Your task to perform on an android device: Open CNN.com Image 0: 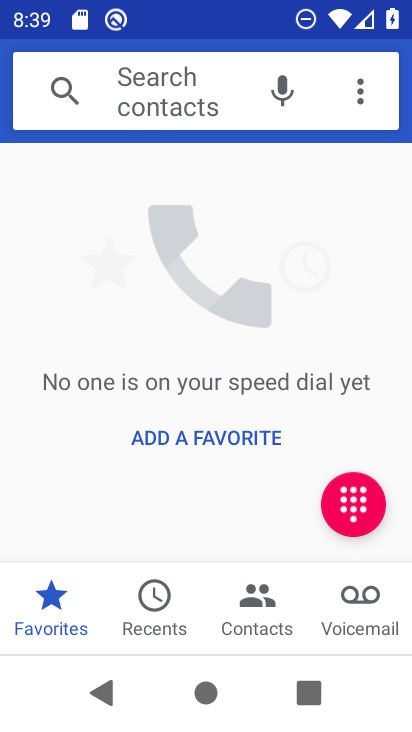
Step 0: drag from (241, 588) to (238, 274)
Your task to perform on an android device: Open CNN.com Image 1: 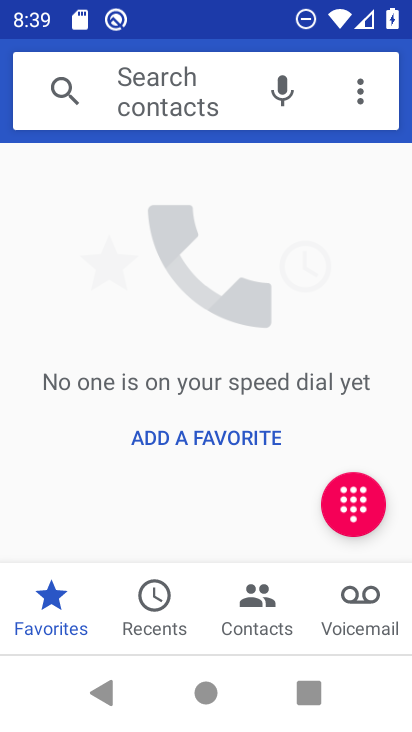
Step 1: press home button
Your task to perform on an android device: Open CNN.com Image 2: 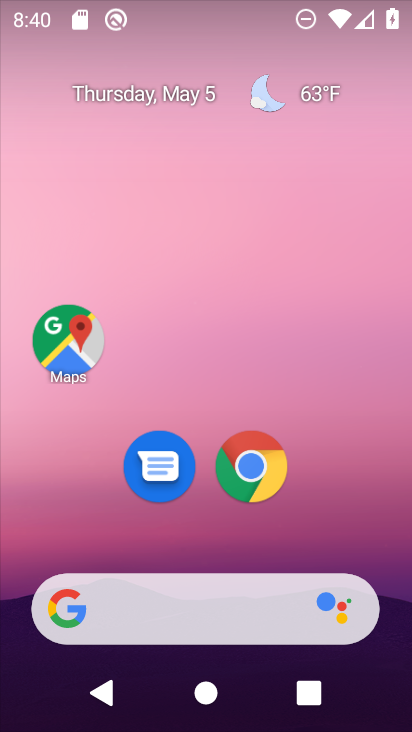
Step 2: click (261, 502)
Your task to perform on an android device: Open CNN.com Image 3: 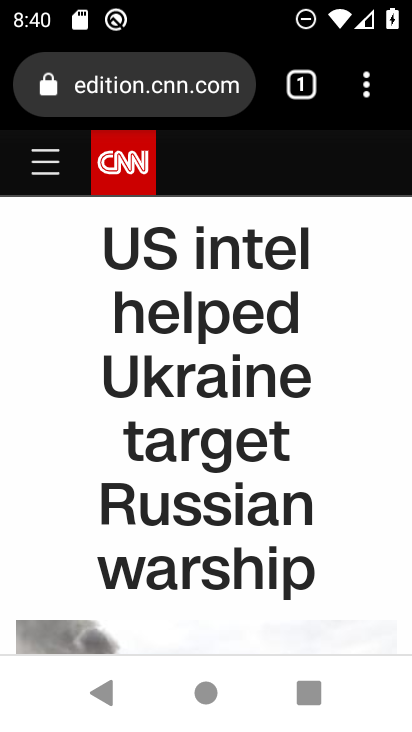
Step 3: task complete